Your task to perform on an android device: Open the calendar and show me this week's events? Image 0: 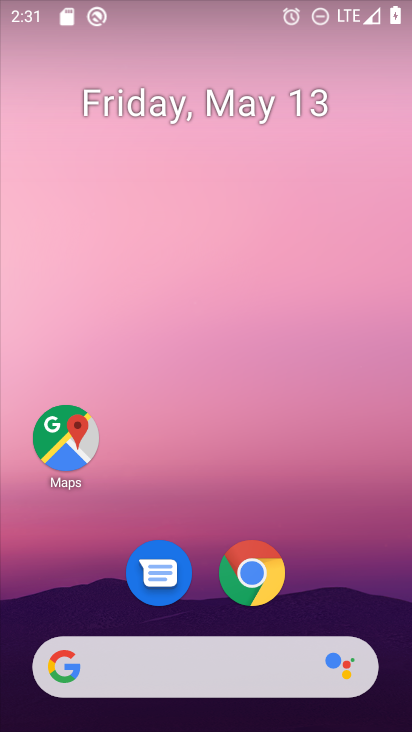
Step 0: drag from (256, 709) to (185, 25)
Your task to perform on an android device: Open the calendar and show me this week's events? Image 1: 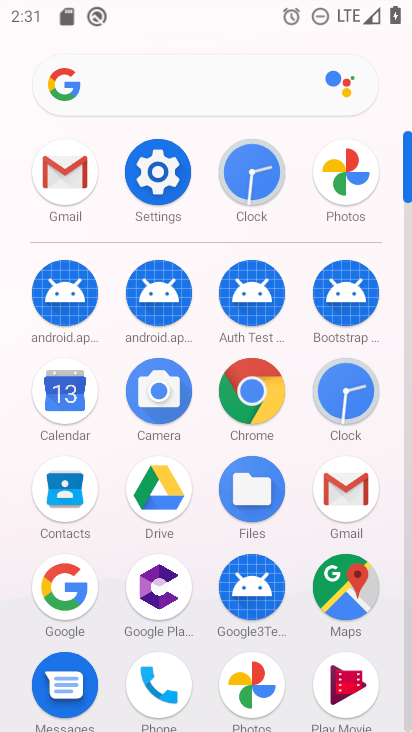
Step 1: click (75, 395)
Your task to perform on an android device: Open the calendar and show me this week's events? Image 2: 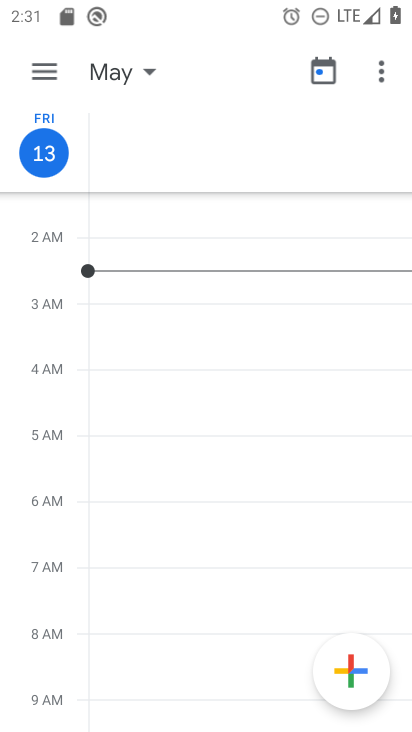
Step 2: click (115, 65)
Your task to perform on an android device: Open the calendar and show me this week's events? Image 3: 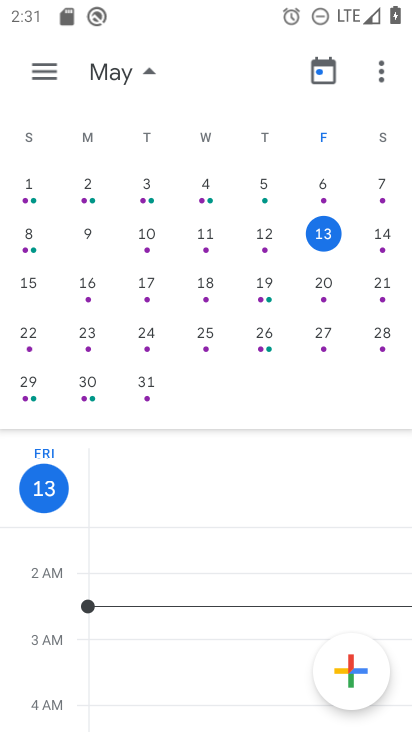
Step 3: task complete